Your task to perform on an android device: turn on bluetooth scan Image 0: 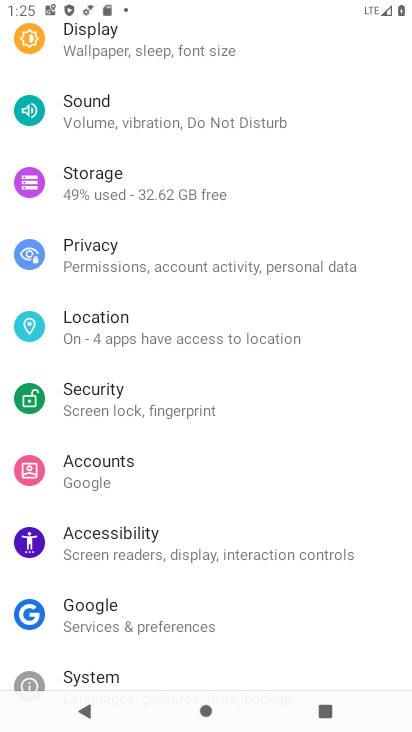
Step 0: drag from (244, 418) to (234, 494)
Your task to perform on an android device: turn on bluetooth scan Image 1: 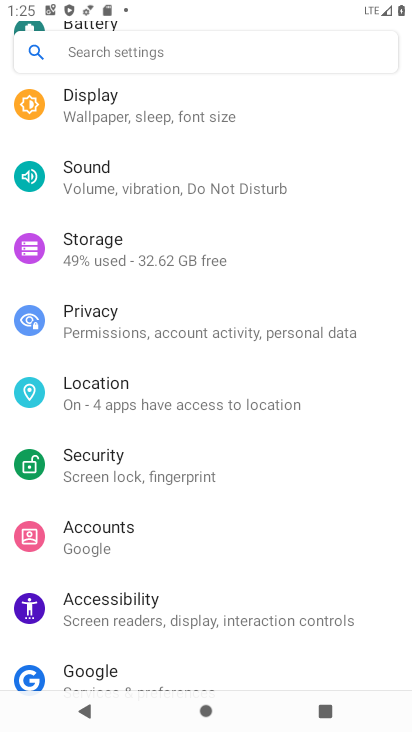
Step 1: click (232, 395)
Your task to perform on an android device: turn on bluetooth scan Image 2: 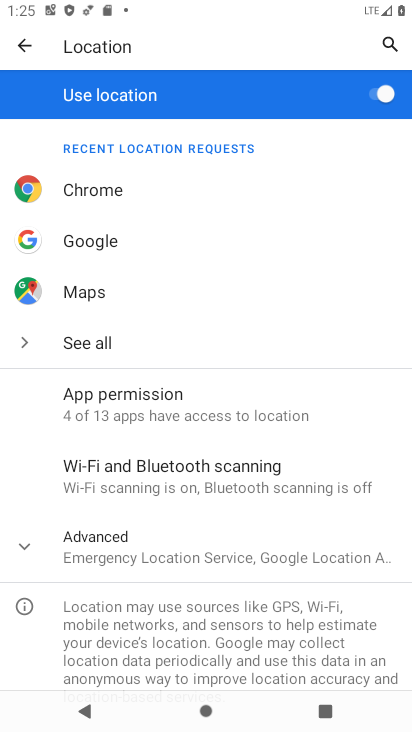
Step 2: click (182, 465)
Your task to perform on an android device: turn on bluetooth scan Image 3: 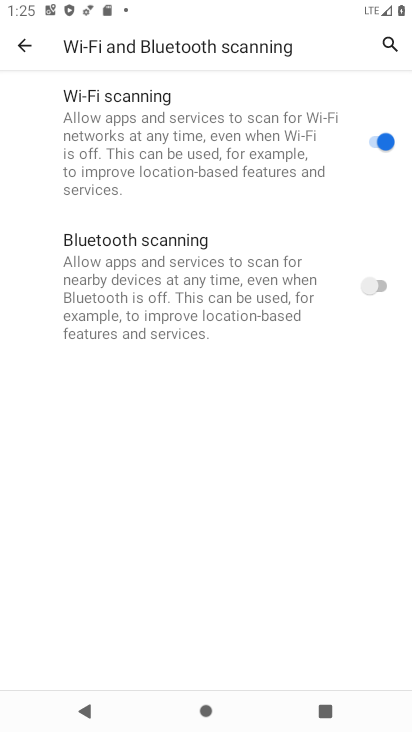
Step 3: click (371, 290)
Your task to perform on an android device: turn on bluetooth scan Image 4: 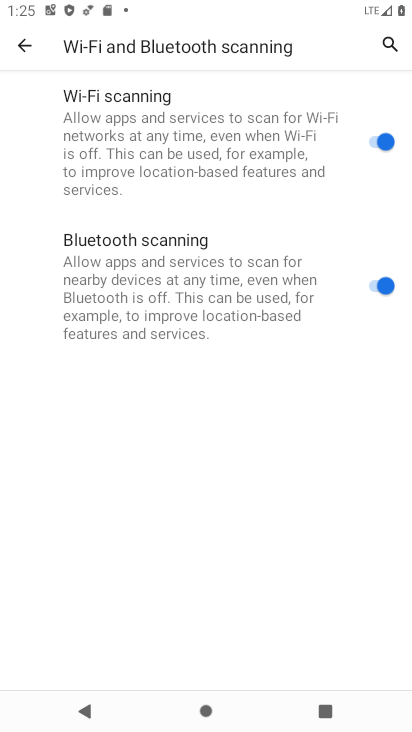
Step 4: task complete